Your task to perform on an android device: Go to wifi settings Image 0: 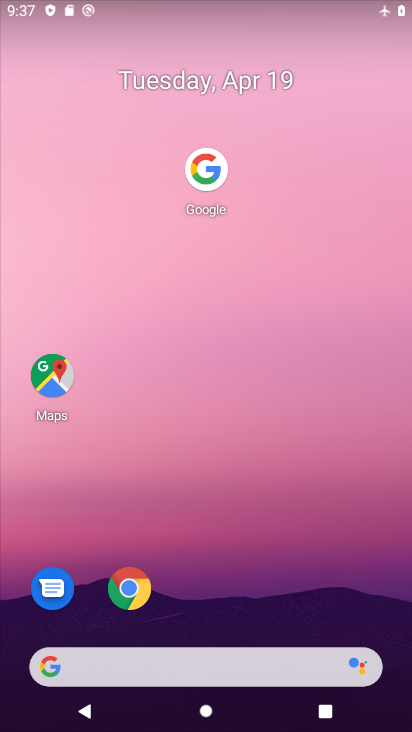
Step 0: drag from (253, 560) to (249, 12)
Your task to perform on an android device: Go to wifi settings Image 1: 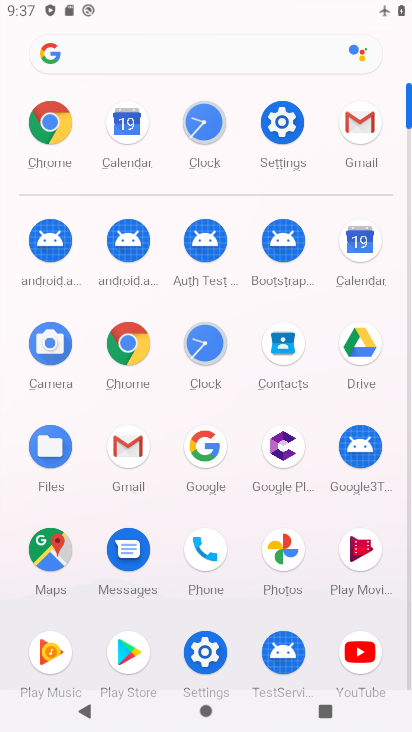
Step 1: click (285, 121)
Your task to perform on an android device: Go to wifi settings Image 2: 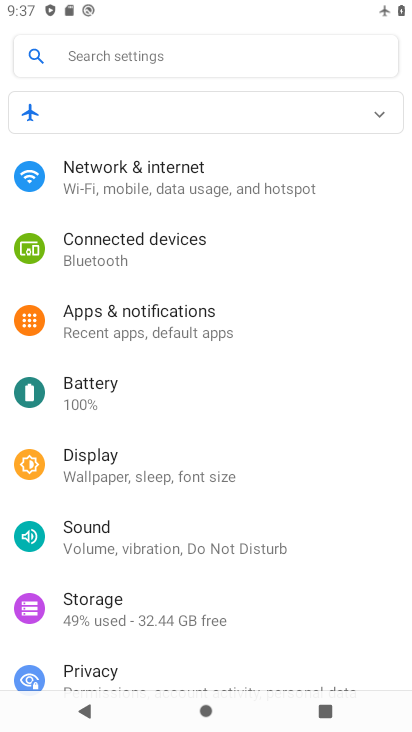
Step 2: click (117, 169)
Your task to perform on an android device: Go to wifi settings Image 3: 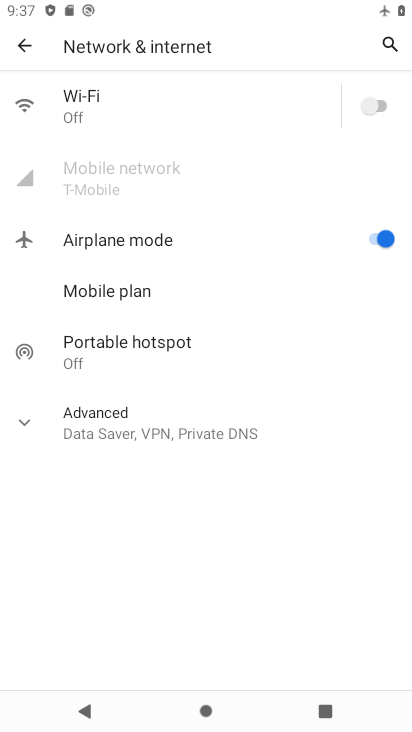
Step 3: click (87, 100)
Your task to perform on an android device: Go to wifi settings Image 4: 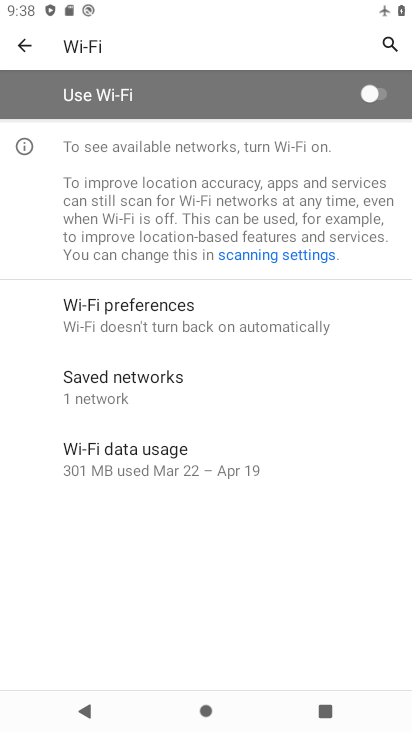
Step 4: task complete